Your task to perform on an android device: Go to Yahoo.com Image 0: 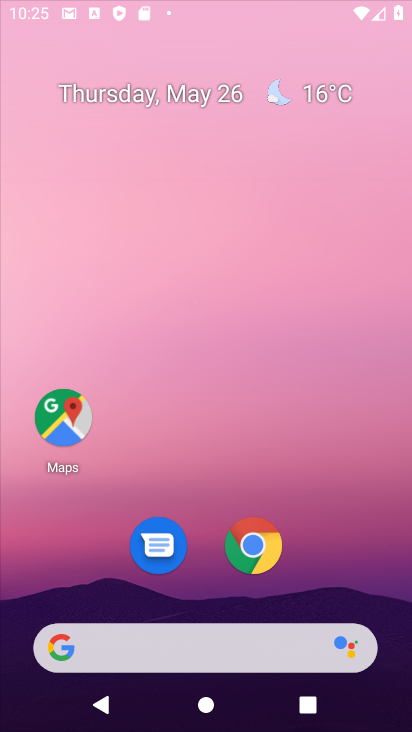
Step 0: press home button
Your task to perform on an android device: Go to Yahoo.com Image 1: 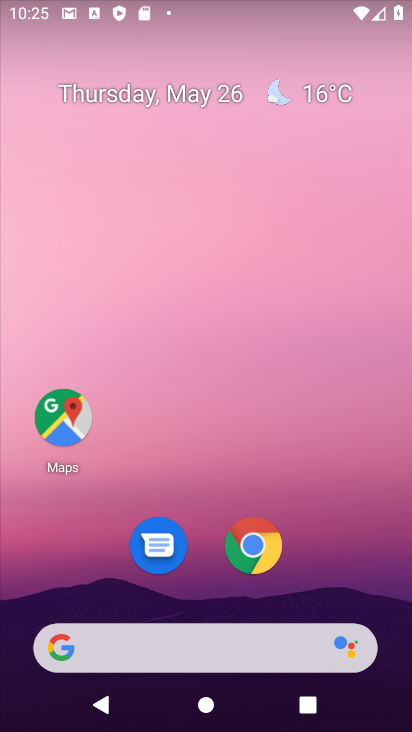
Step 1: click (57, 646)
Your task to perform on an android device: Go to Yahoo.com Image 2: 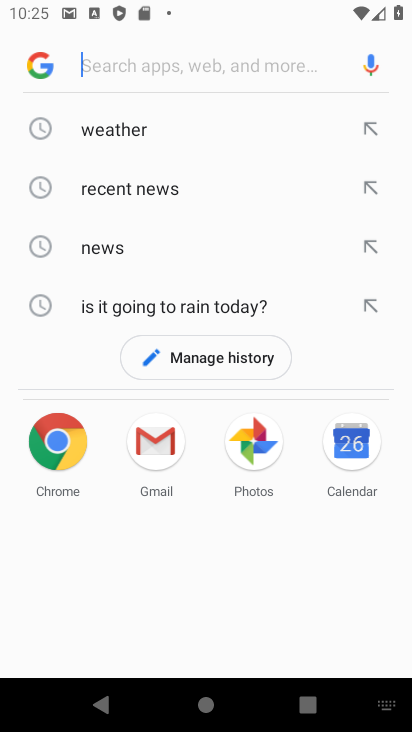
Step 2: type "yahoo.com"
Your task to perform on an android device: Go to Yahoo.com Image 3: 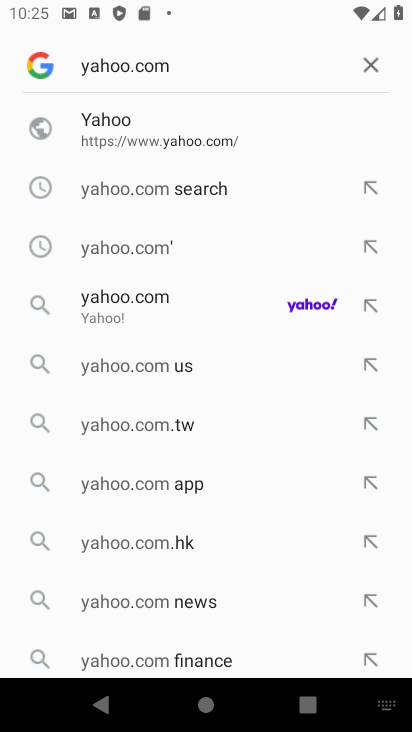
Step 3: click (107, 135)
Your task to perform on an android device: Go to Yahoo.com Image 4: 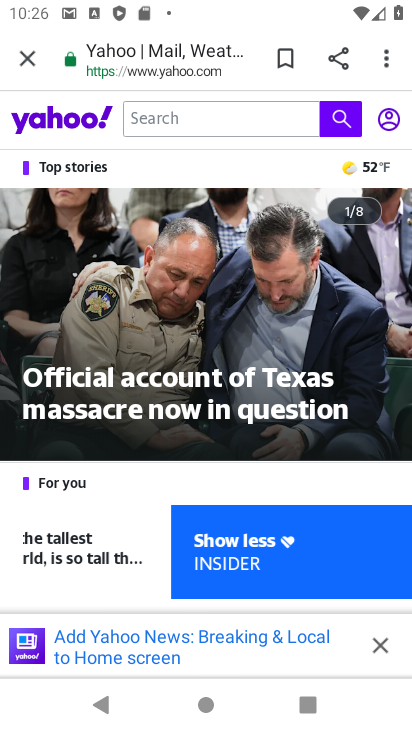
Step 4: task complete